Your task to perform on an android device: Clear the cart on newegg. Search for rayovac triple a on newegg, select the first entry, add it to the cart, then select checkout. Image 0: 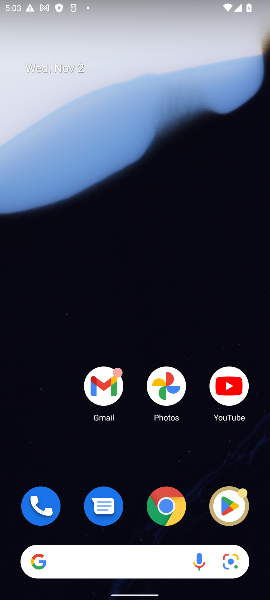
Step 0: click (176, 500)
Your task to perform on an android device: Clear the cart on newegg. Search for rayovac triple a on newegg, select the first entry, add it to the cart, then select checkout. Image 1: 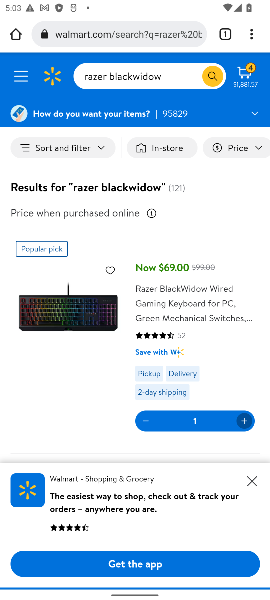
Step 1: click (110, 35)
Your task to perform on an android device: Clear the cart on newegg. Search for rayovac triple a on newegg, select the first entry, add it to the cart, then select checkout. Image 2: 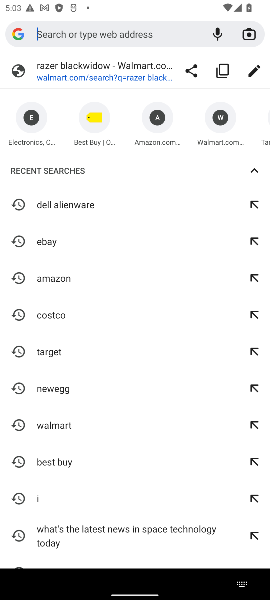
Step 2: click (98, 37)
Your task to perform on an android device: Clear the cart on newegg. Search for rayovac triple a on newegg, select the first entry, add it to the cart, then select checkout. Image 3: 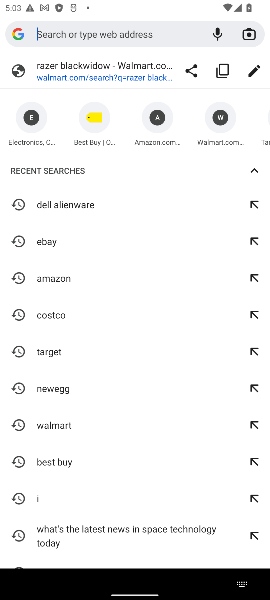
Step 3: type "newegg"
Your task to perform on an android device: Clear the cart on newegg. Search for rayovac triple a on newegg, select the first entry, add it to the cart, then select checkout. Image 4: 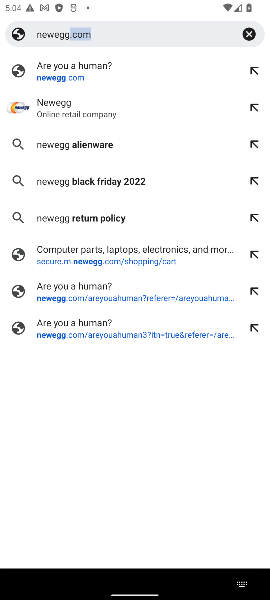
Step 4: press enter
Your task to perform on an android device: Clear the cart on newegg. Search for rayovac triple a on newegg, select the first entry, add it to the cart, then select checkout. Image 5: 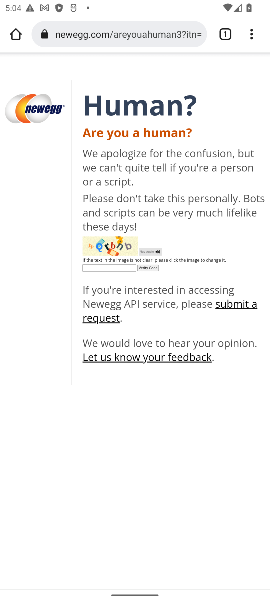
Step 5: task complete